Your task to perform on an android device: toggle data saver in the chrome app Image 0: 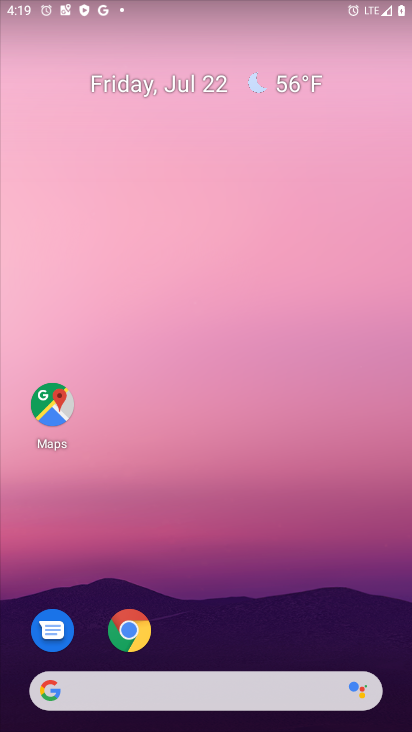
Step 0: click (137, 642)
Your task to perform on an android device: toggle data saver in the chrome app Image 1: 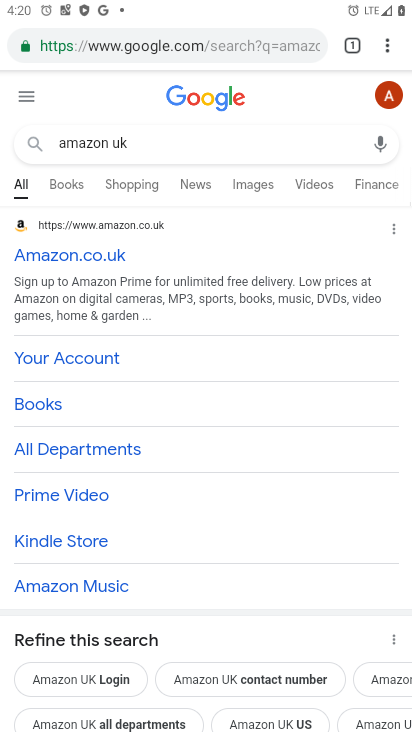
Step 1: drag from (388, 47) to (272, 502)
Your task to perform on an android device: toggle data saver in the chrome app Image 2: 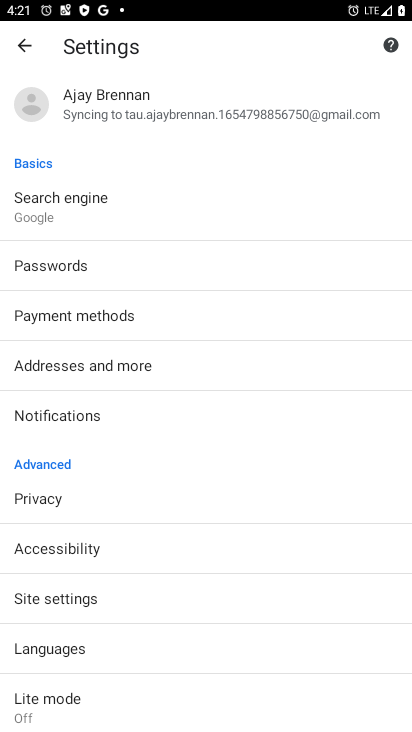
Step 2: click (87, 689)
Your task to perform on an android device: toggle data saver in the chrome app Image 3: 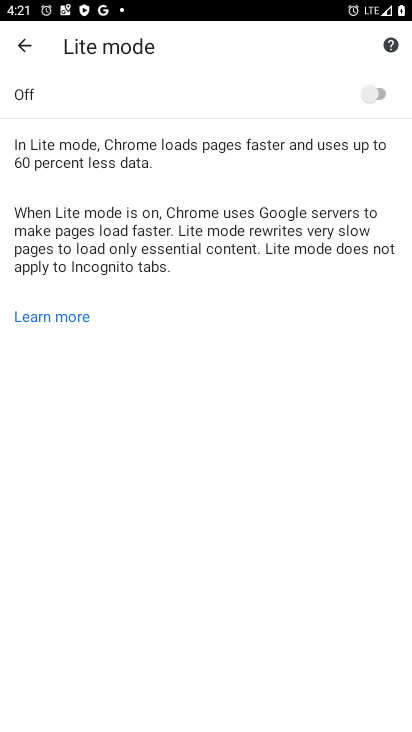
Step 3: click (383, 92)
Your task to perform on an android device: toggle data saver in the chrome app Image 4: 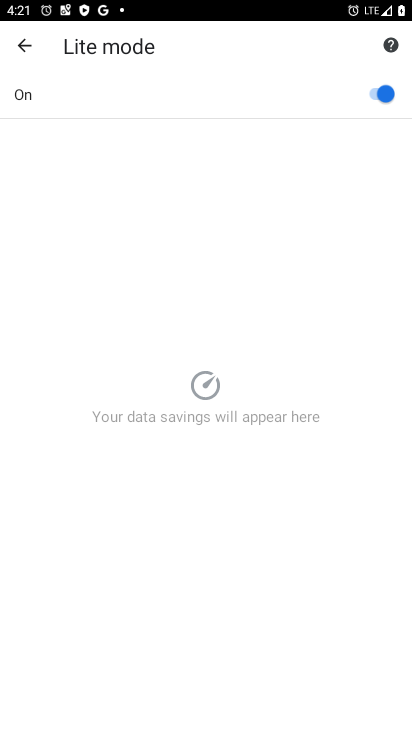
Step 4: task complete